Your task to perform on an android device: Show me recent news Image 0: 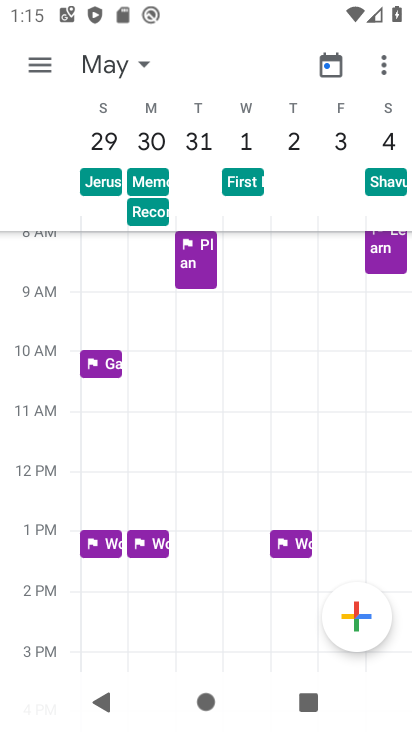
Step 0: press home button
Your task to perform on an android device: Show me recent news Image 1: 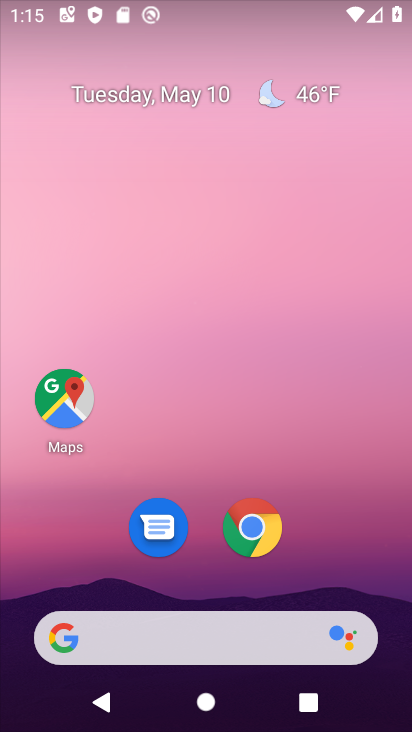
Step 1: task complete